Your task to perform on an android device: Go to Yahoo.com Image 0: 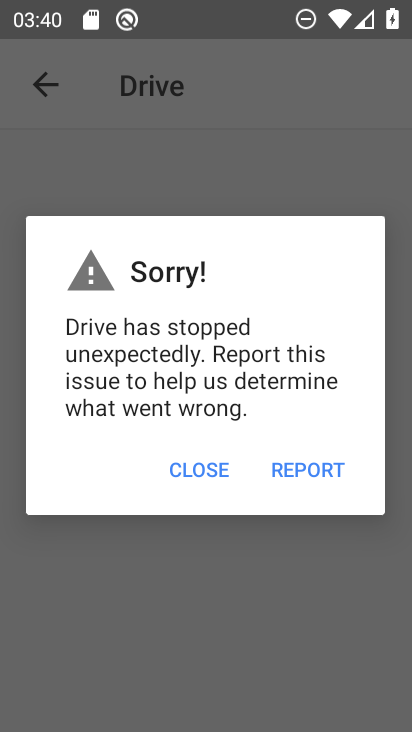
Step 0: press home button
Your task to perform on an android device: Go to Yahoo.com Image 1: 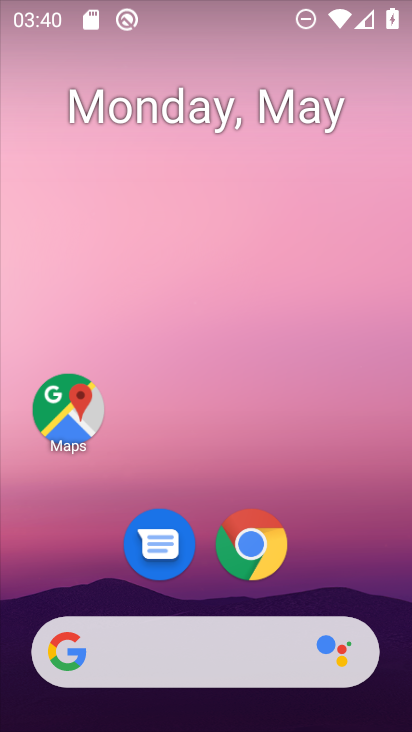
Step 1: drag from (345, 547) to (361, 184)
Your task to perform on an android device: Go to Yahoo.com Image 2: 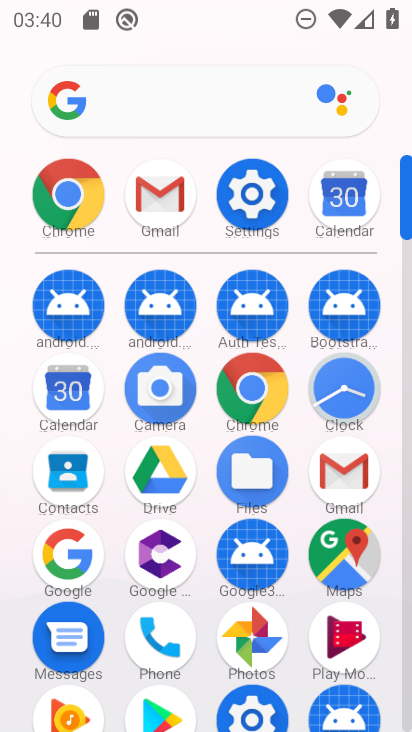
Step 2: click (248, 404)
Your task to perform on an android device: Go to Yahoo.com Image 3: 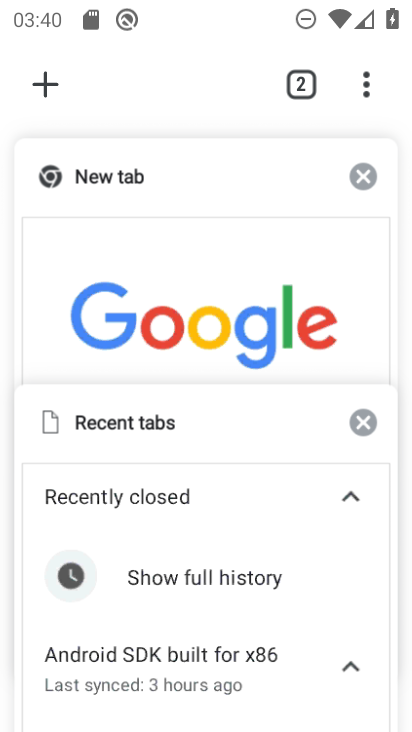
Step 3: press back button
Your task to perform on an android device: Go to Yahoo.com Image 4: 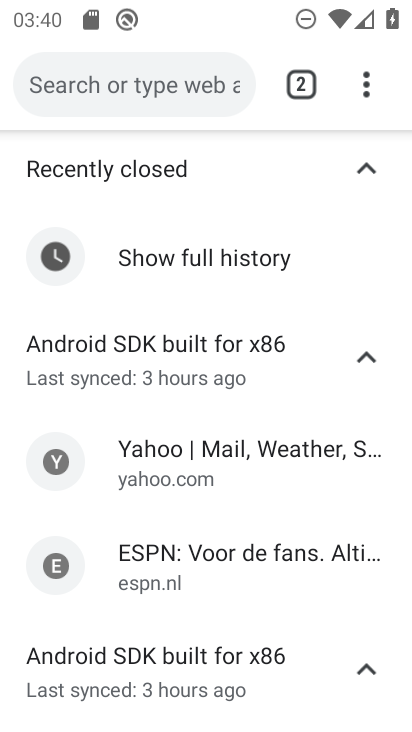
Step 4: click (159, 85)
Your task to perform on an android device: Go to Yahoo.com Image 5: 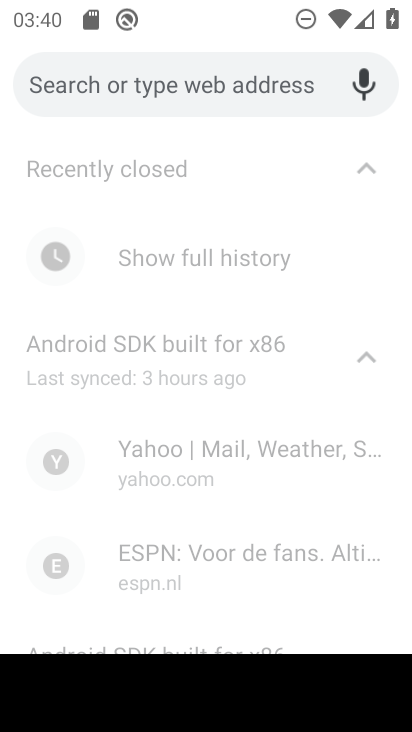
Step 5: type "yahoo.com"
Your task to perform on an android device: Go to Yahoo.com Image 6: 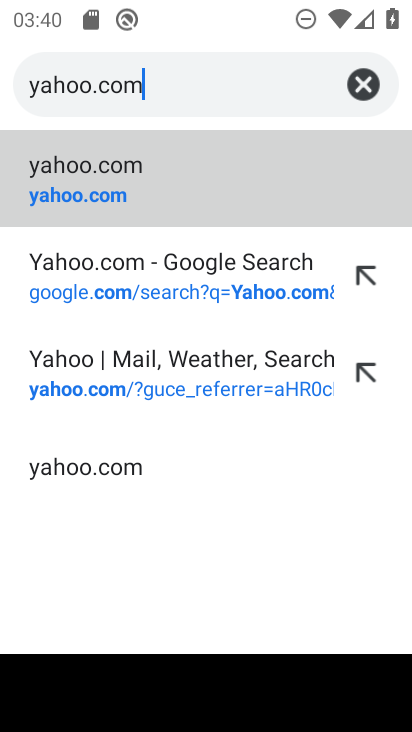
Step 6: click (146, 199)
Your task to perform on an android device: Go to Yahoo.com Image 7: 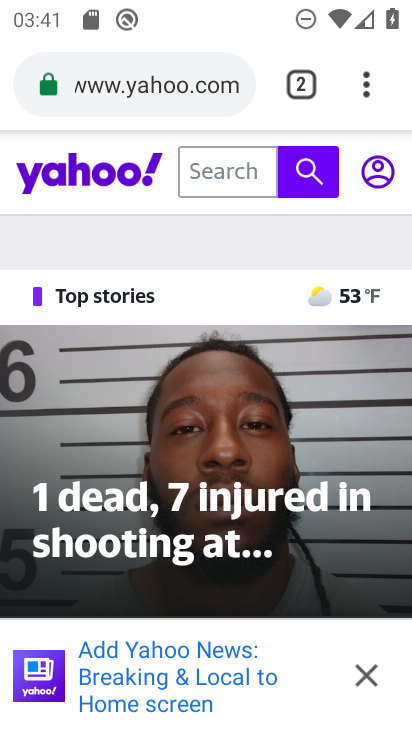
Step 7: task complete